Your task to perform on an android device: Open ESPN.com Image 0: 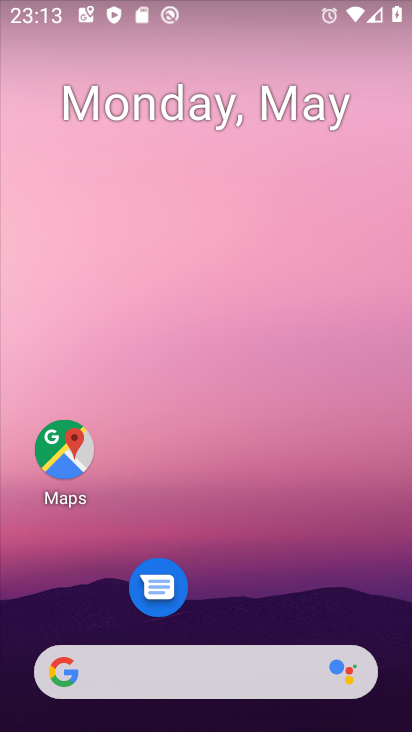
Step 0: drag from (200, 626) to (231, 28)
Your task to perform on an android device: Open ESPN.com Image 1: 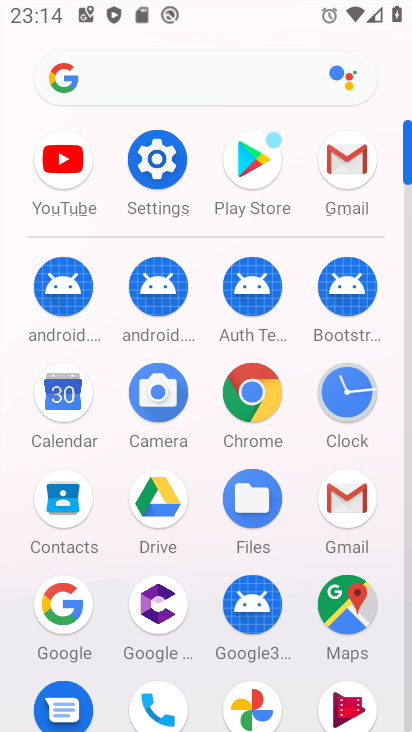
Step 1: click (254, 406)
Your task to perform on an android device: Open ESPN.com Image 2: 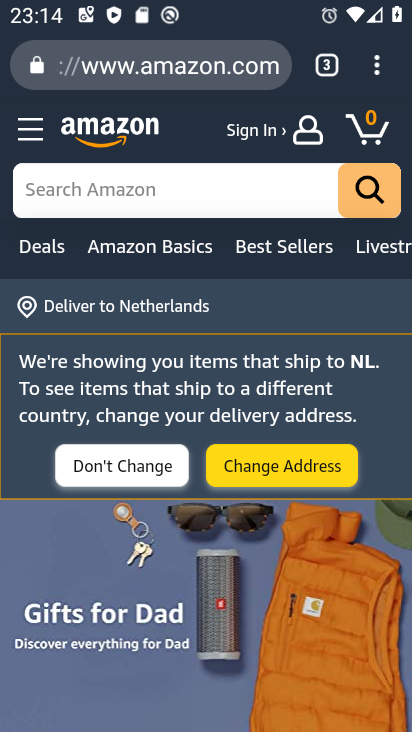
Step 2: click (330, 81)
Your task to perform on an android device: Open ESPN.com Image 3: 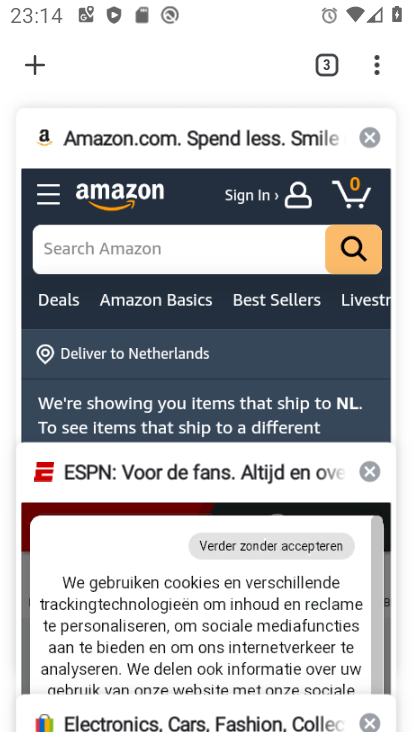
Step 3: click (38, 70)
Your task to perform on an android device: Open ESPN.com Image 4: 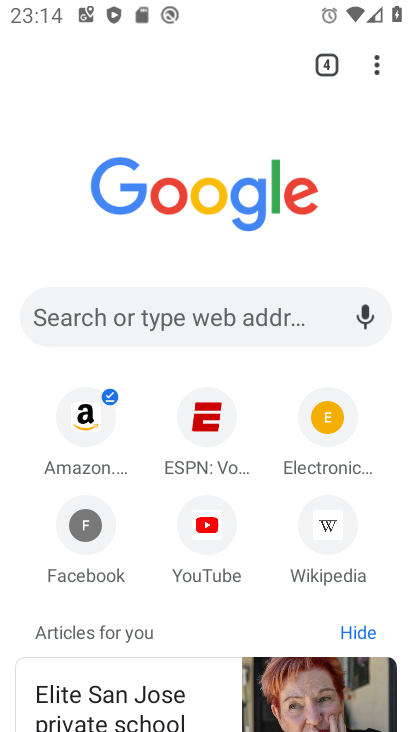
Step 4: click (200, 442)
Your task to perform on an android device: Open ESPN.com Image 5: 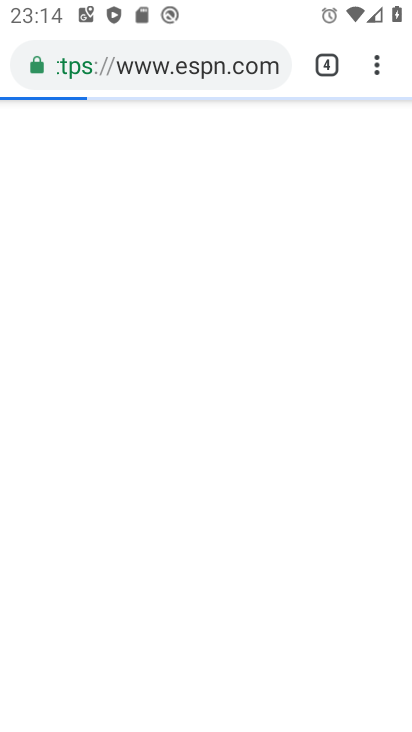
Step 5: task complete